Your task to perform on an android device: What's the weather going to be tomorrow? Image 0: 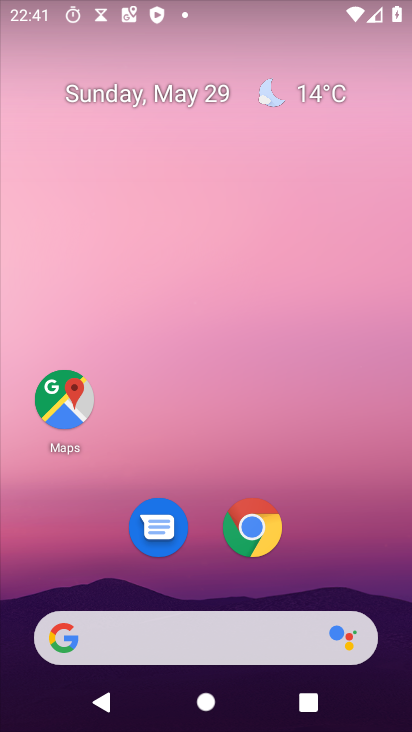
Step 0: press home button
Your task to perform on an android device: What's the weather going to be tomorrow? Image 1: 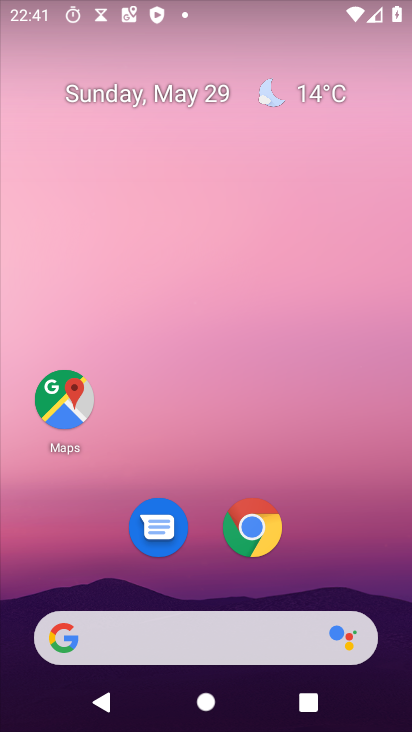
Step 1: click (319, 92)
Your task to perform on an android device: What's the weather going to be tomorrow? Image 2: 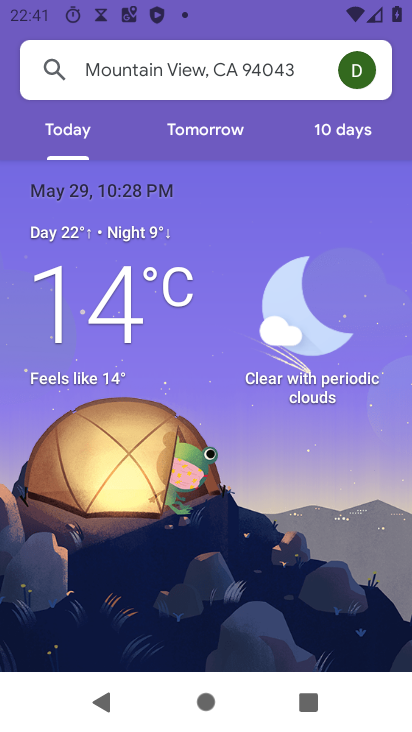
Step 2: click (209, 133)
Your task to perform on an android device: What's the weather going to be tomorrow? Image 3: 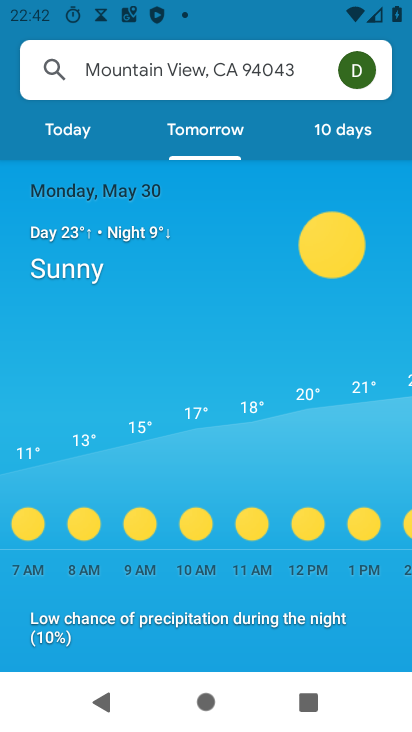
Step 3: task complete